Your task to perform on an android device: turn off notifications settings in the gmail app Image 0: 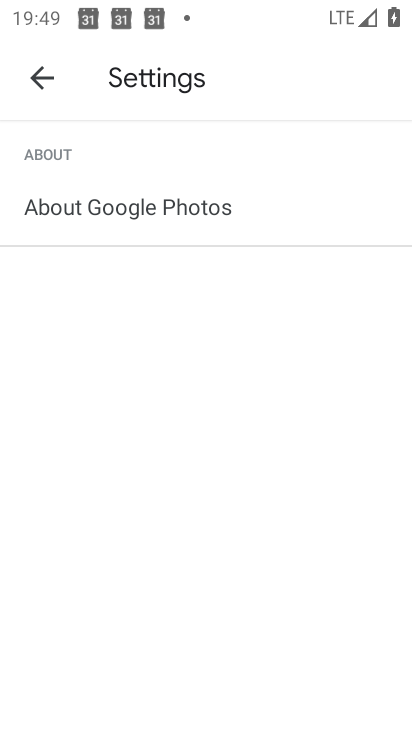
Step 0: press home button
Your task to perform on an android device: turn off notifications settings in the gmail app Image 1: 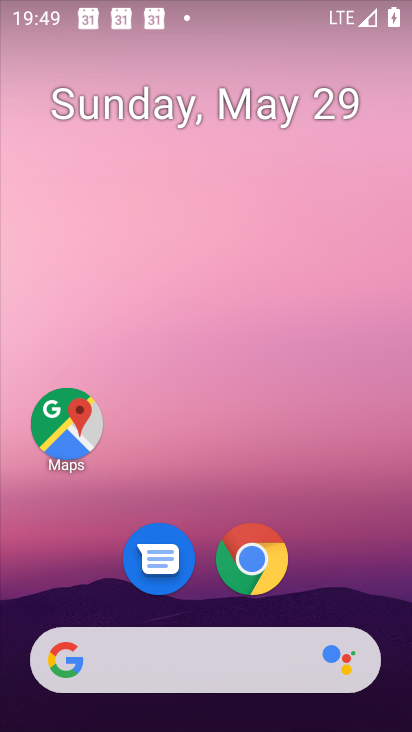
Step 1: drag from (379, 620) to (380, 237)
Your task to perform on an android device: turn off notifications settings in the gmail app Image 2: 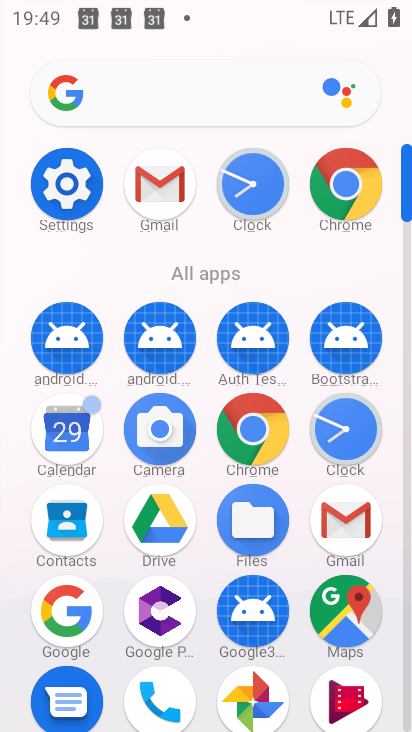
Step 2: click (345, 536)
Your task to perform on an android device: turn off notifications settings in the gmail app Image 3: 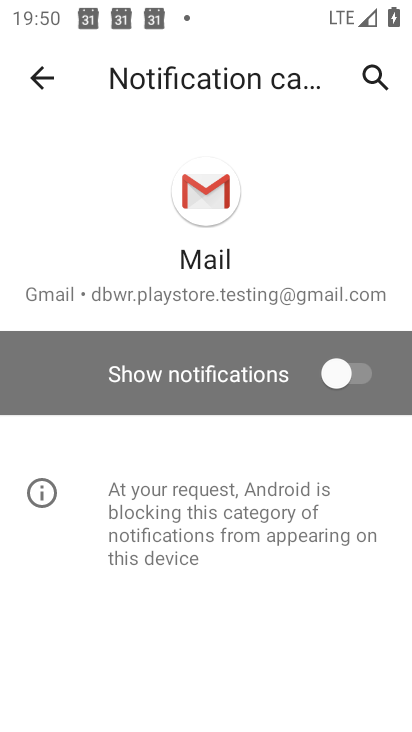
Step 3: task complete